Your task to perform on an android device: turn off translation in the chrome app Image 0: 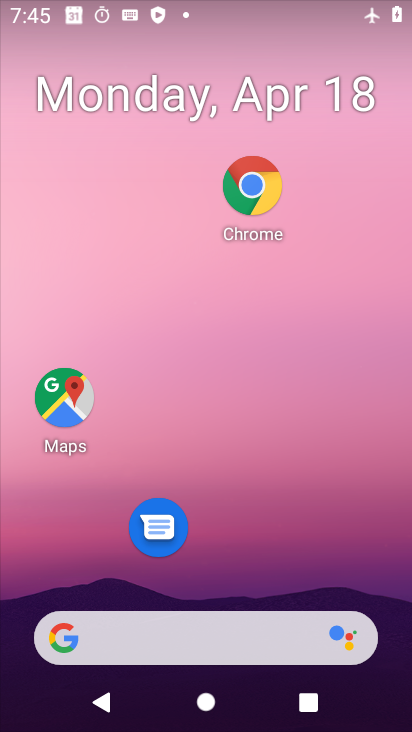
Step 0: drag from (274, 474) to (298, 162)
Your task to perform on an android device: turn off translation in the chrome app Image 1: 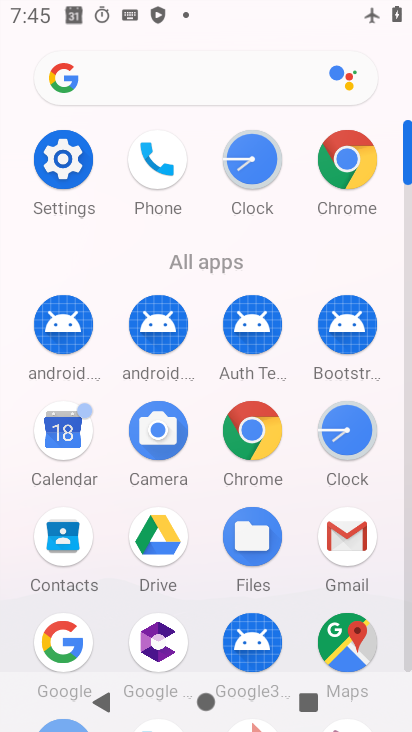
Step 1: click (247, 419)
Your task to perform on an android device: turn off translation in the chrome app Image 2: 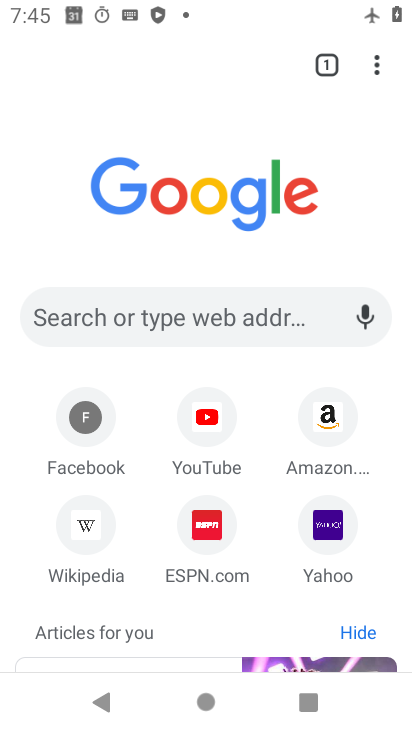
Step 2: click (373, 59)
Your task to perform on an android device: turn off translation in the chrome app Image 3: 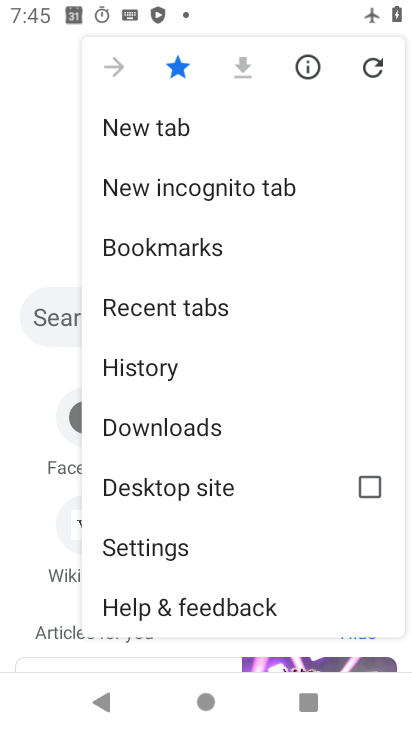
Step 3: click (143, 555)
Your task to perform on an android device: turn off translation in the chrome app Image 4: 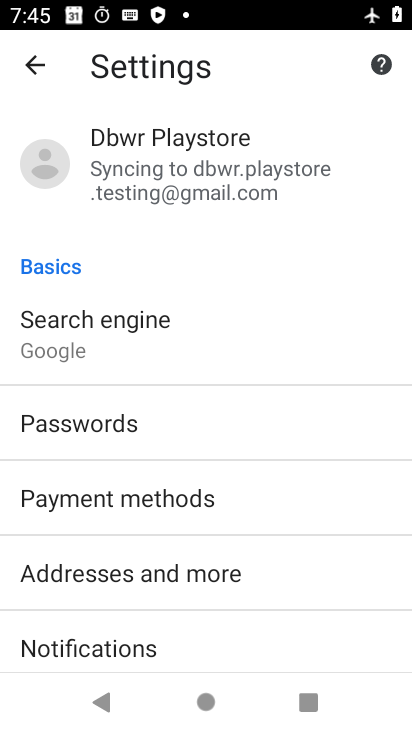
Step 4: drag from (158, 565) to (264, 178)
Your task to perform on an android device: turn off translation in the chrome app Image 5: 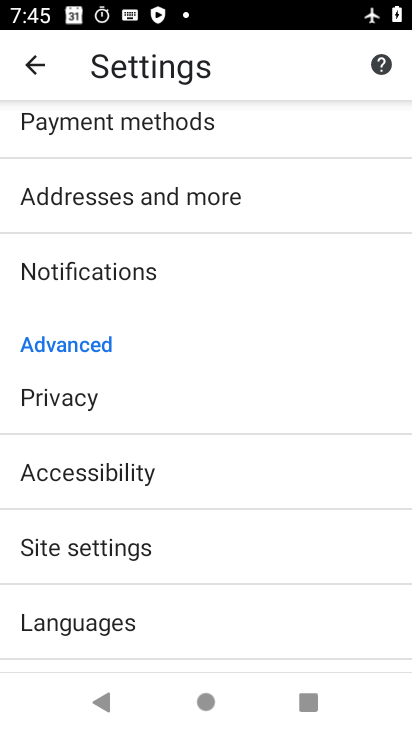
Step 5: click (99, 618)
Your task to perform on an android device: turn off translation in the chrome app Image 6: 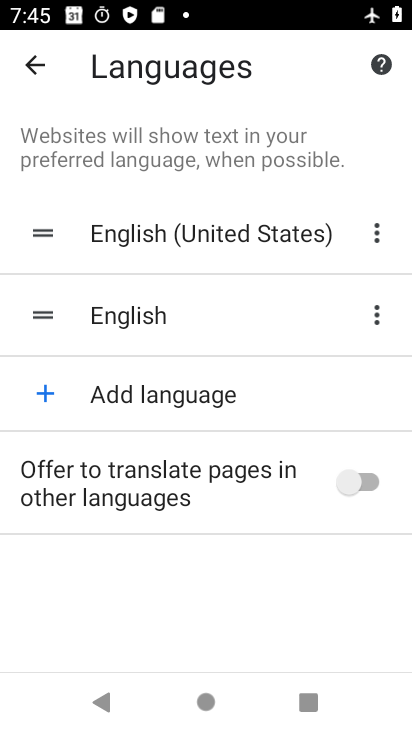
Step 6: task complete